Your task to perform on an android device: Open settings Image 0: 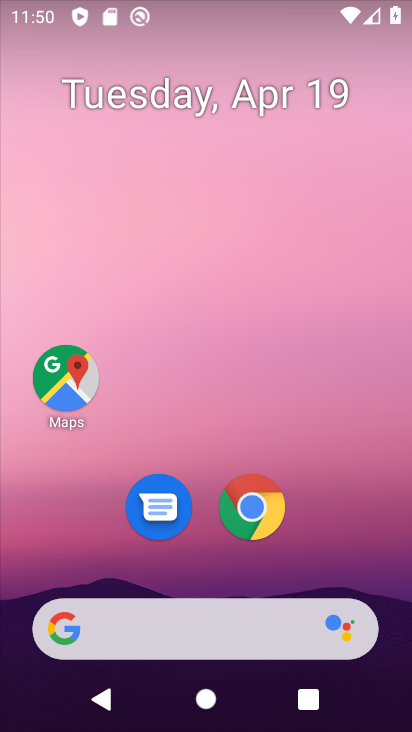
Step 0: drag from (362, 534) to (368, 185)
Your task to perform on an android device: Open settings Image 1: 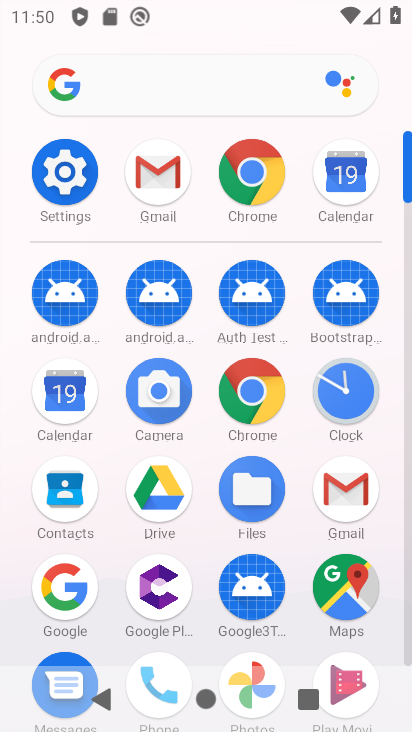
Step 1: click (62, 177)
Your task to perform on an android device: Open settings Image 2: 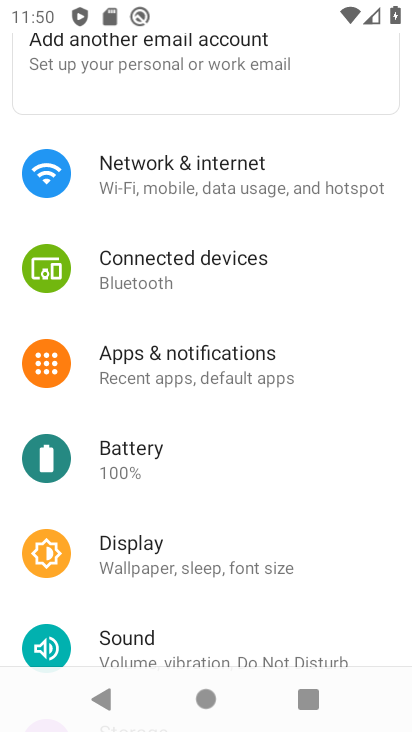
Step 2: task complete